Your task to perform on an android device: change notification settings in the gmail app Image 0: 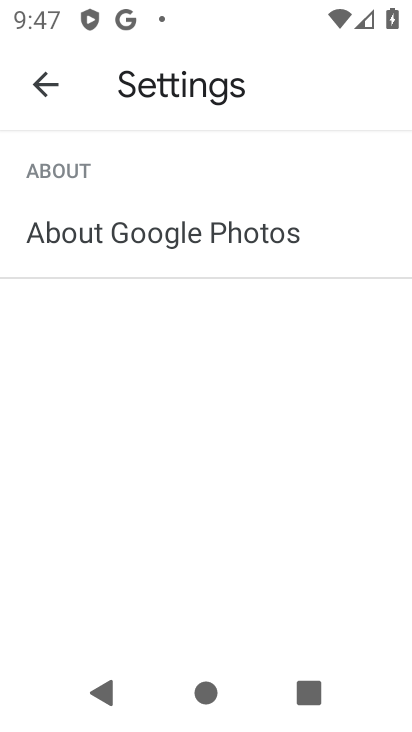
Step 0: press home button
Your task to perform on an android device: change notification settings in the gmail app Image 1: 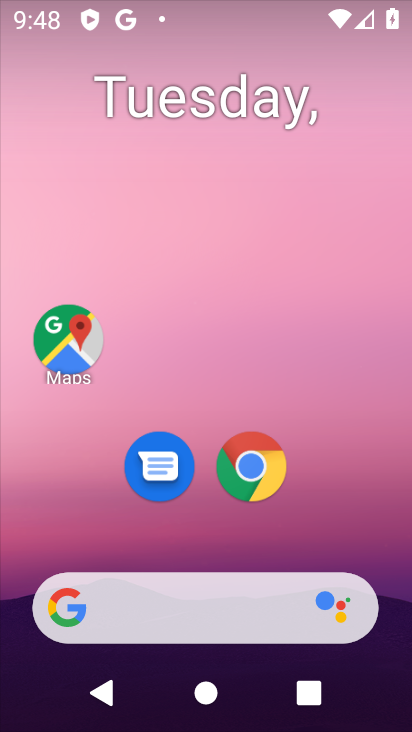
Step 1: drag from (321, 534) to (265, 43)
Your task to perform on an android device: change notification settings in the gmail app Image 2: 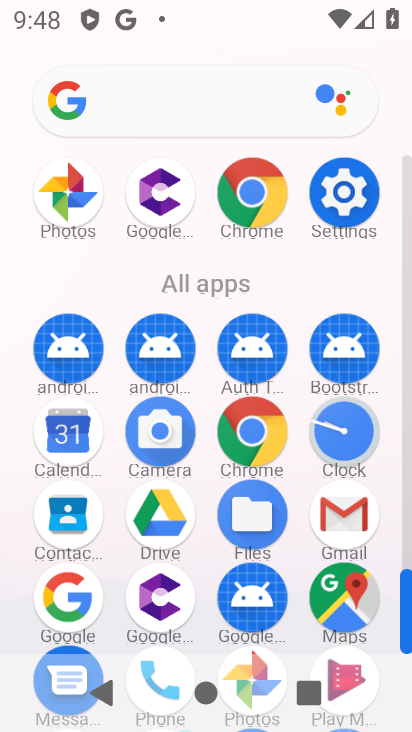
Step 2: click (348, 513)
Your task to perform on an android device: change notification settings in the gmail app Image 3: 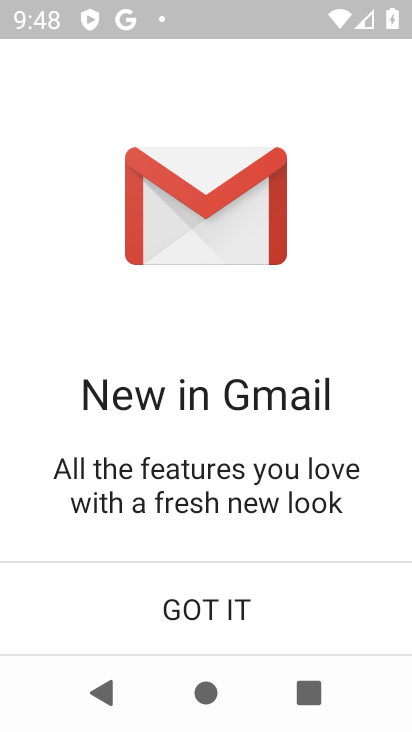
Step 3: click (233, 615)
Your task to perform on an android device: change notification settings in the gmail app Image 4: 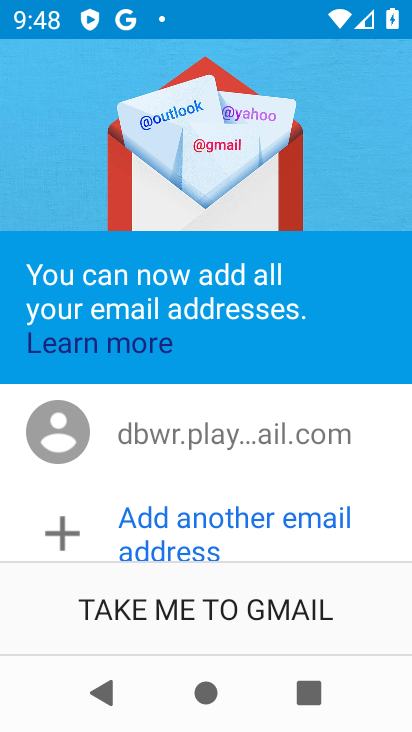
Step 4: click (213, 604)
Your task to perform on an android device: change notification settings in the gmail app Image 5: 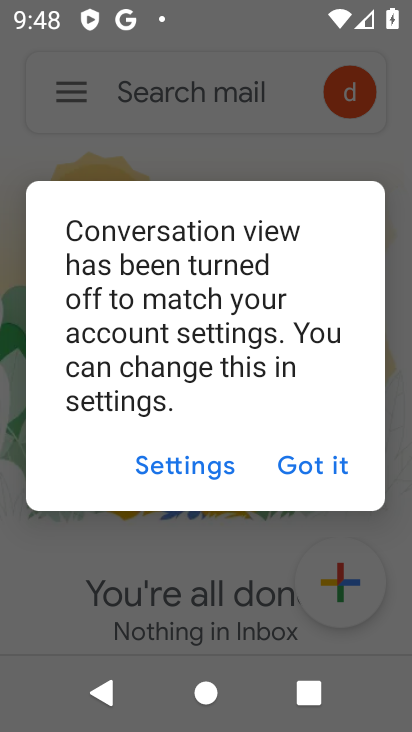
Step 5: click (309, 468)
Your task to perform on an android device: change notification settings in the gmail app Image 6: 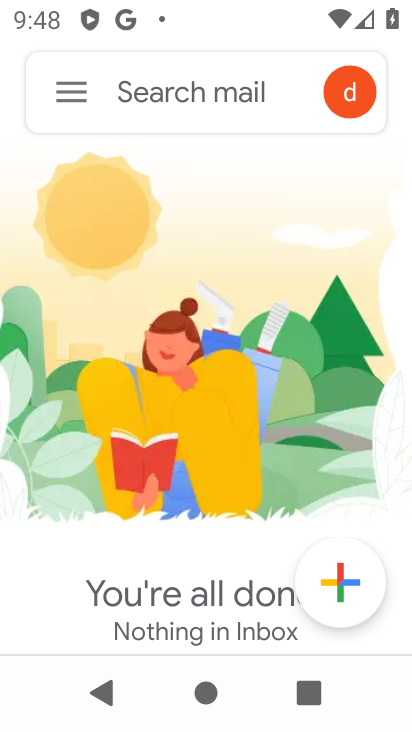
Step 6: click (90, 87)
Your task to perform on an android device: change notification settings in the gmail app Image 7: 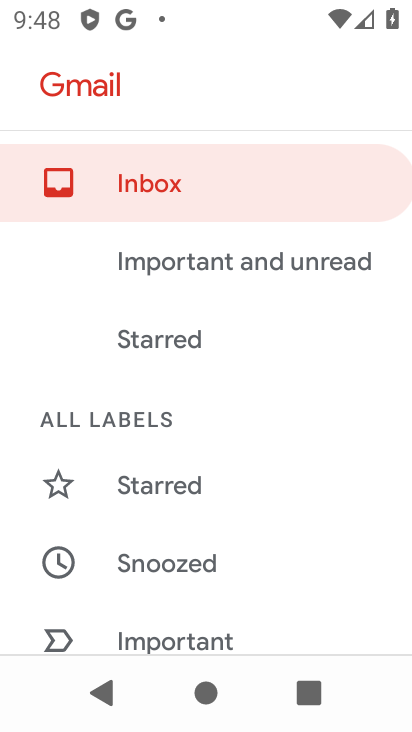
Step 7: drag from (204, 649) to (238, 162)
Your task to perform on an android device: change notification settings in the gmail app Image 8: 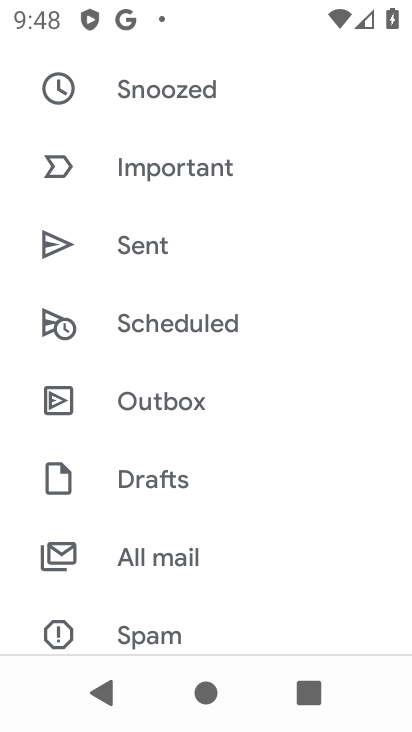
Step 8: drag from (205, 530) to (243, 142)
Your task to perform on an android device: change notification settings in the gmail app Image 9: 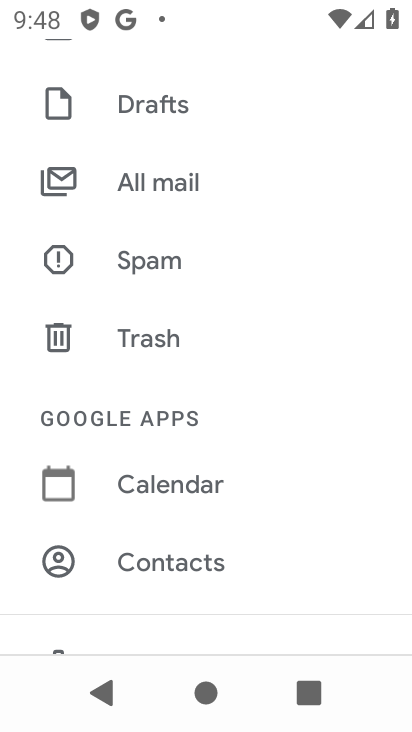
Step 9: drag from (185, 587) to (278, 173)
Your task to perform on an android device: change notification settings in the gmail app Image 10: 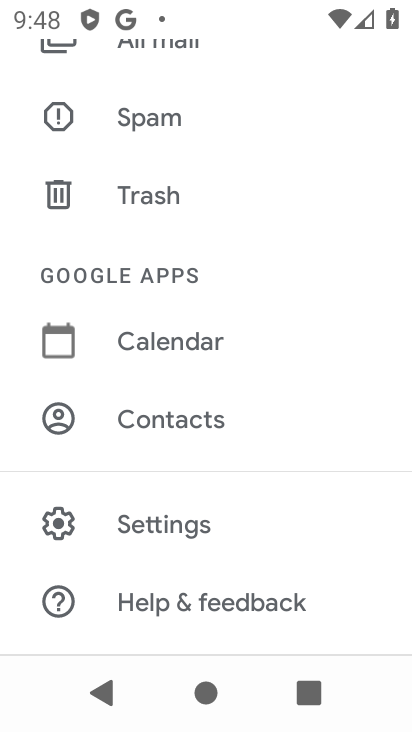
Step 10: click (175, 535)
Your task to perform on an android device: change notification settings in the gmail app Image 11: 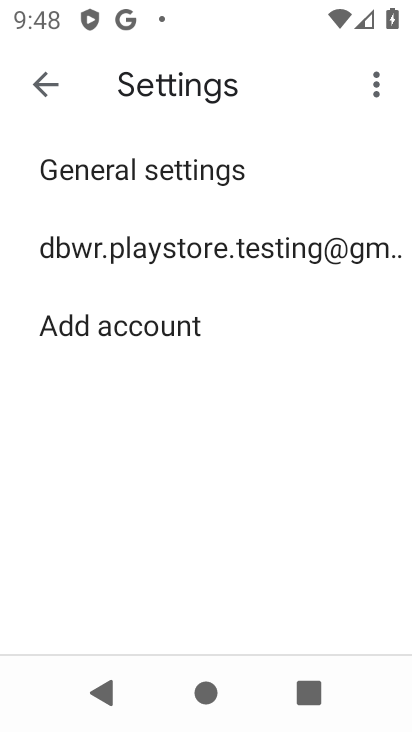
Step 11: click (191, 260)
Your task to perform on an android device: change notification settings in the gmail app Image 12: 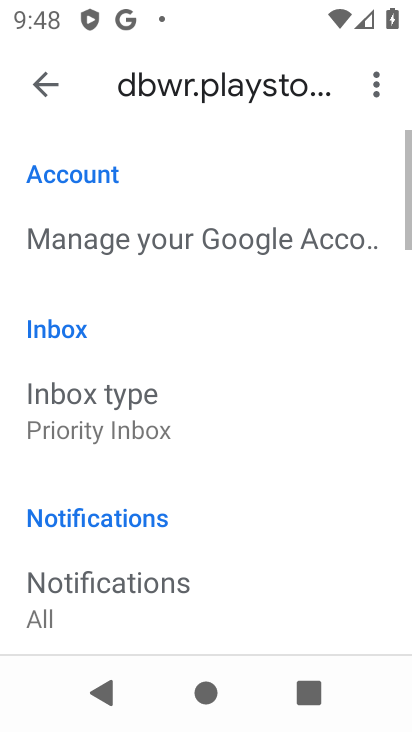
Step 12: drag from (189, 438) to (251, 64)
Your task to perform on an android device: change notification settings in the gmail app Image 13: 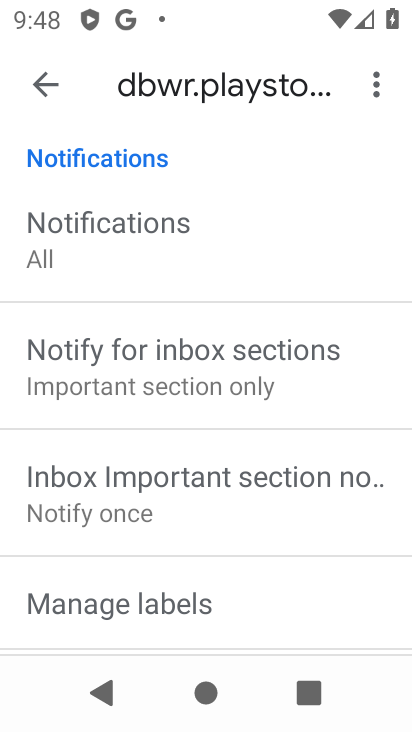
Step 13: drag from (200, 498) to (270, 238)
Your task to perform on an android device: change notification settings in the gmail app Image 14: 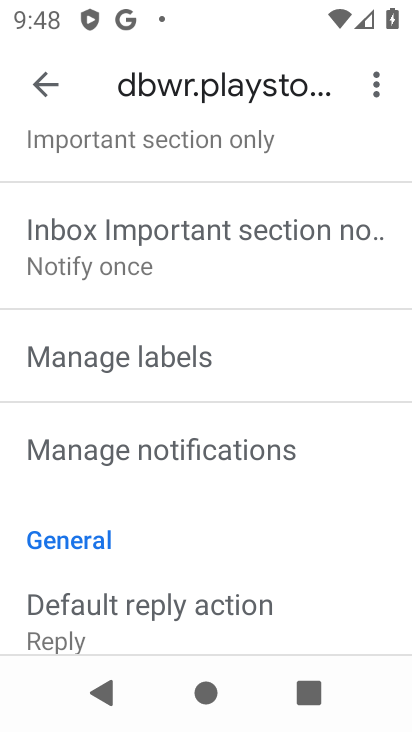
Step 14: click (212, 437)
Your task to perform on an android device: change notification settings in the gmail app Image 15: 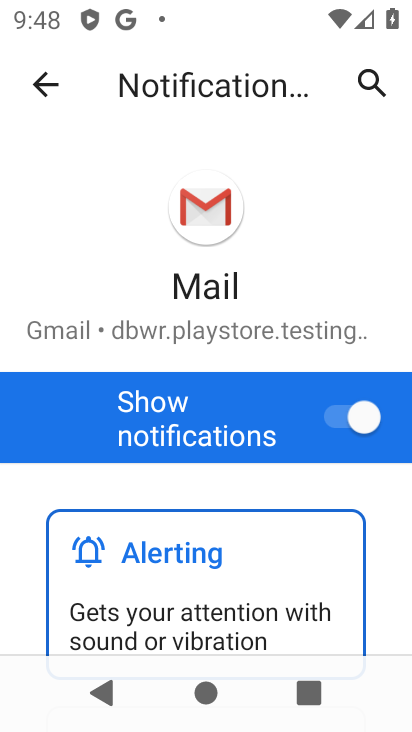
Step 15: click (359, 430)
Your task to perform on an android device: change notification settings in the gmail app Image 16: 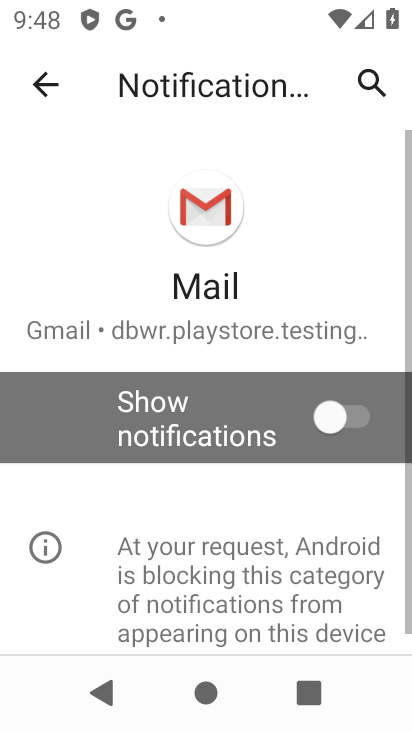
Step 16: task complete